Your task to perform on an android device: set the timer Image 0: 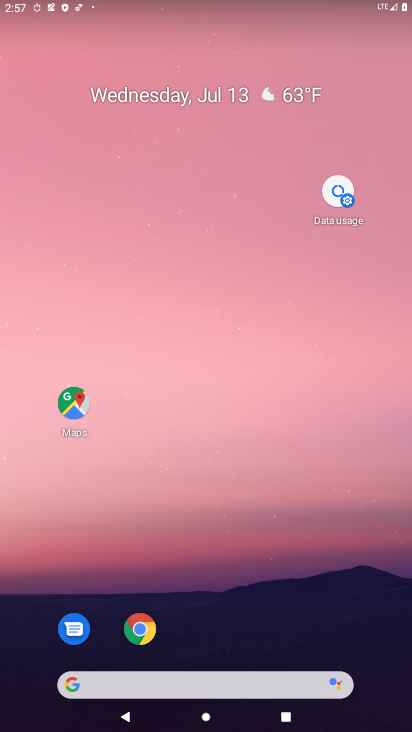
Step 0: drag from (199, 641) to (184, 7)
Your task to perform on an android device: set the timer Image 1: 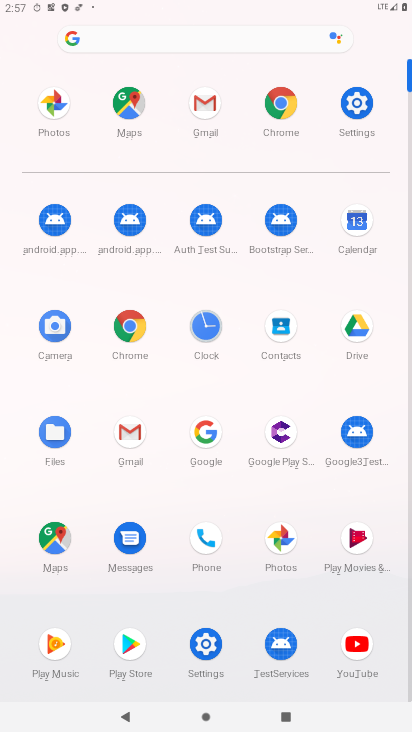
Step 1: click (195, 323)
Your task to perform on an android device: set the timer Image 2: 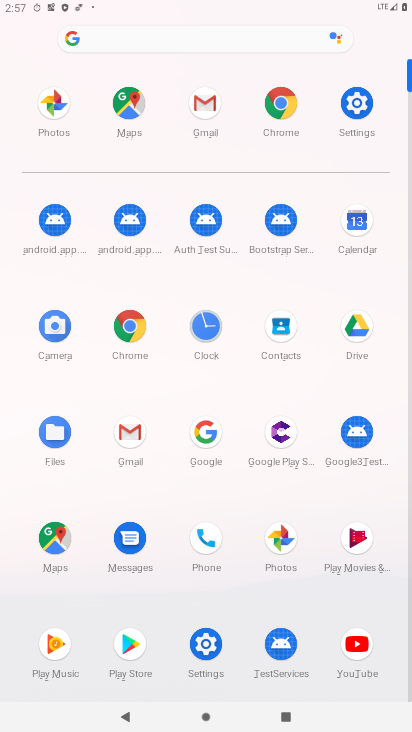
Step 2: click (195, 323)
Your task to perform on an android device: set the timer Image 3: 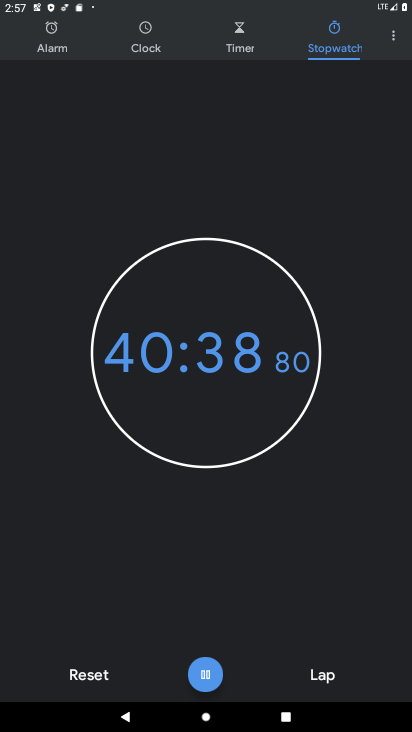
Step 3: click (91, 682)
Your task to perform on an android device: set the timer Image 4: 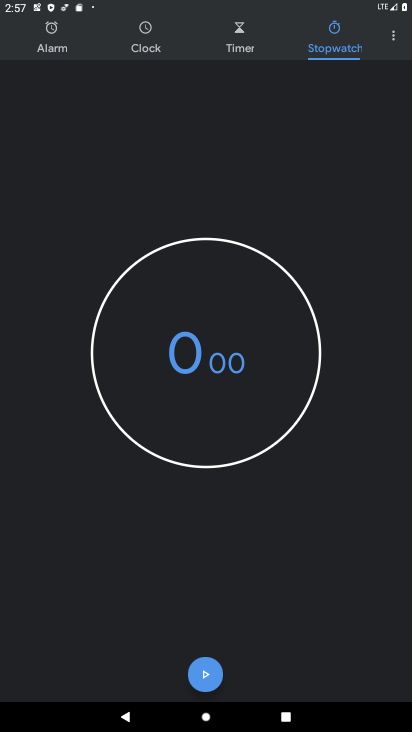
Step 4: click (240, 35)
Your task to perform on an android device: set the timer Image 5: 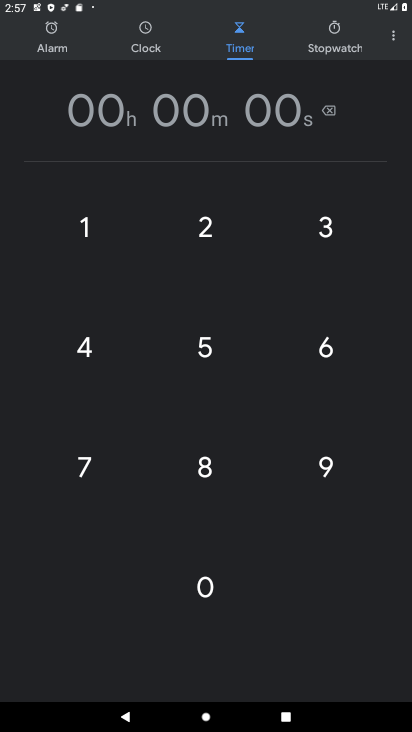
Step 5: click (200, 240)
Your task to perform on an android device: set the timer Image 6: 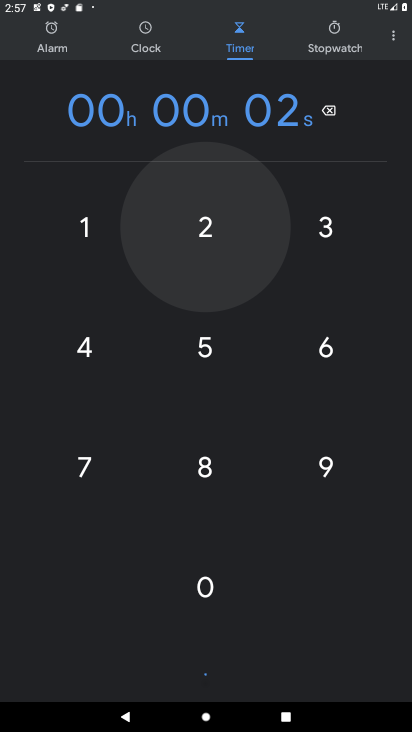
Step 6: click (322, 233)
Your task to perform on an android device: set the timer Image 7: 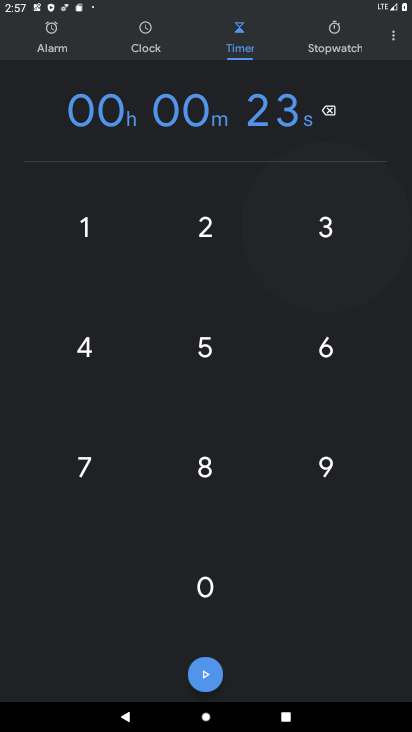
Step 7: click (244, 314)
Your task to perform on an android device: set the timer Image 8: 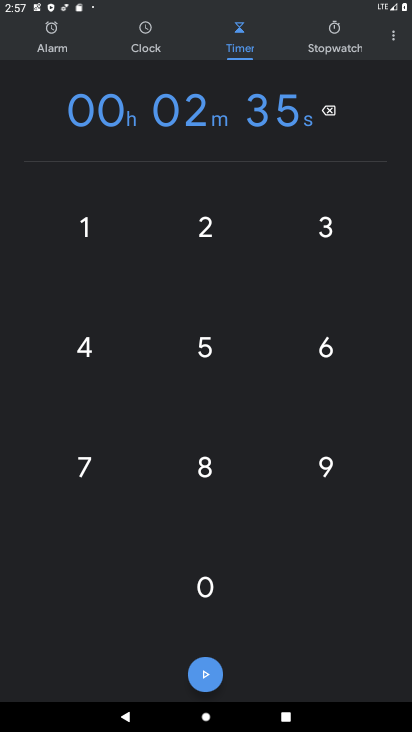
Step 8: click (190, 683)
Your task to perform on an android device: set the timer Image 9: 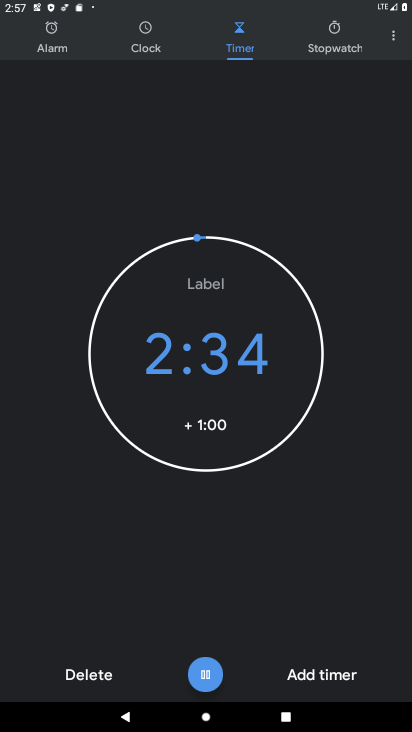
Step 9: task complete